Your task to perform on an android device: Search for sushi restaurants on Maps Image 0: 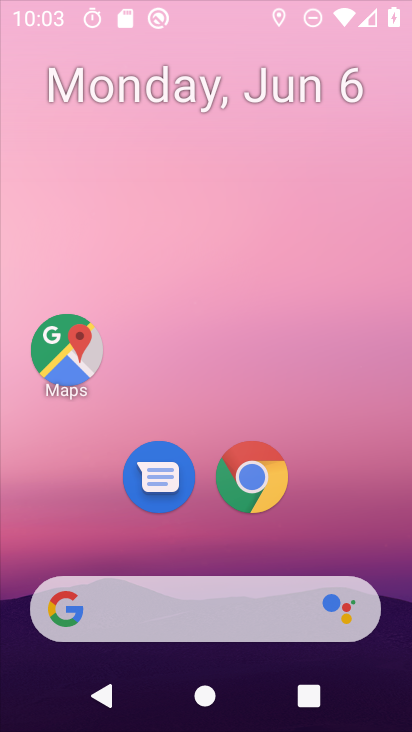
Step 0: drag from (322, 89) to (300, 30)
Your task to perform on an android device: Search for sushi restaurants on Maps Image 1: 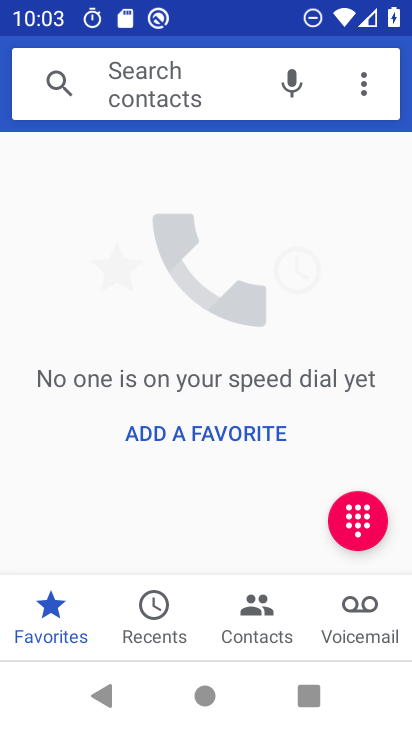
Step 1: press home button
Your task to perform on an android device: Search for sushi restaurants on Maps Image 2: 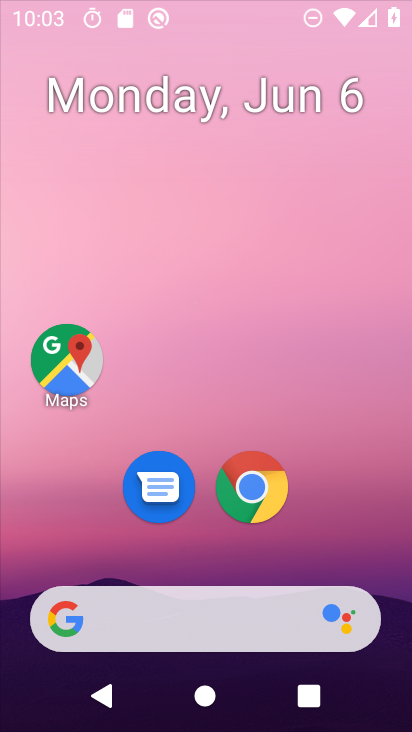
Step 2: drag from (397, 678) to (300, 62)
Your task to perform on an android device: Search for sushi restaurants on Maps Image 3: 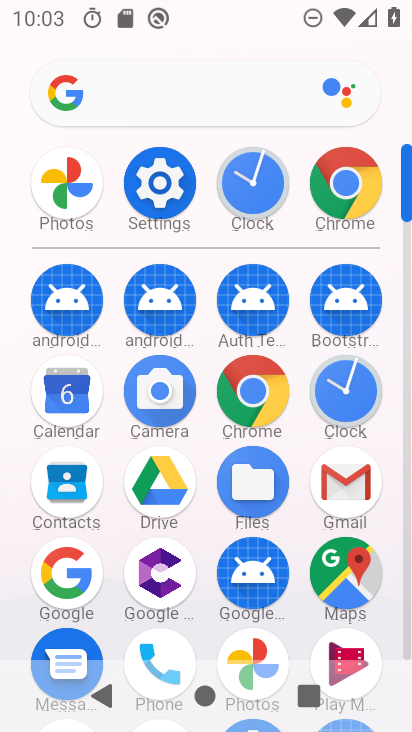
Step 3: click (356, 580)
Your task to perform on an android device: Search for sushi restaurants on Maps Image 4: 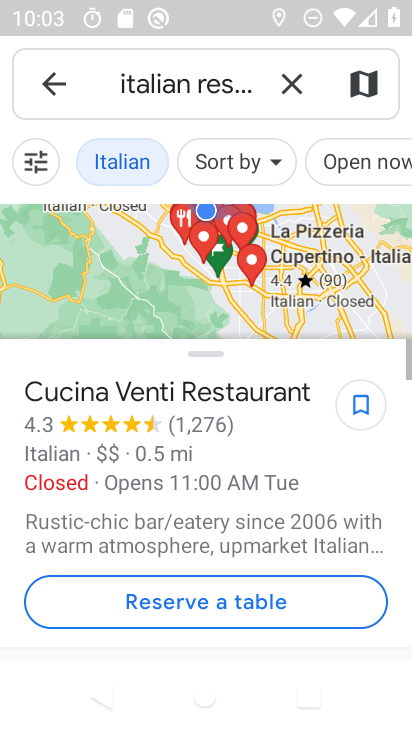
Step 4: click (293, 77)
Your task to perform on an android device: Search for sushi restaurants on Maps Image 5: 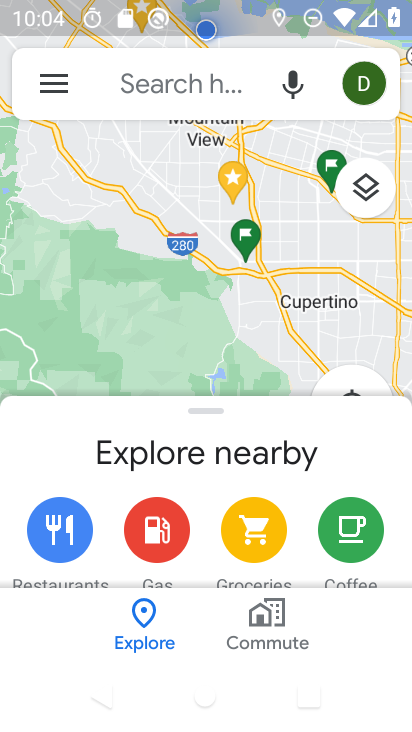
Step 5: click (182, 89)
Your task to perform on an android device: Search for sushi restaurants on Maps Image 6: 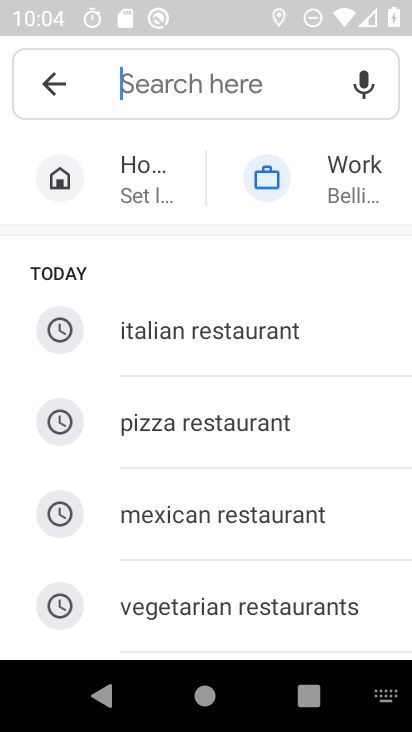
Step 6: drag from (184, 586) to (194, 207)
Your task to perform on an android device: Search for sushi restaurants on Maps Image 7: 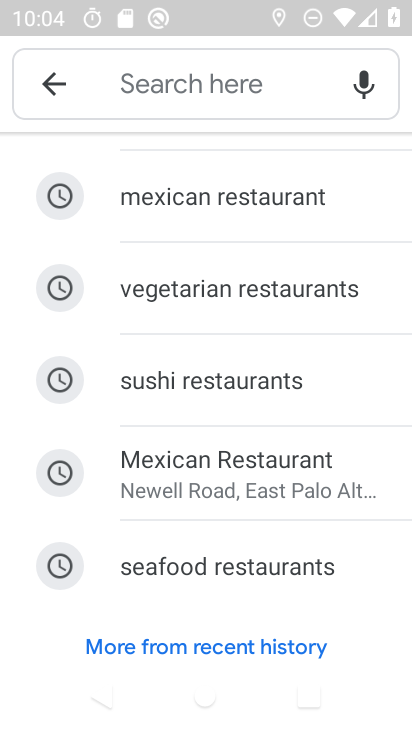
Step 7: click (170, 369)
Your task to perform on an android device: Search for sushi restaurants on Maps Image 8: 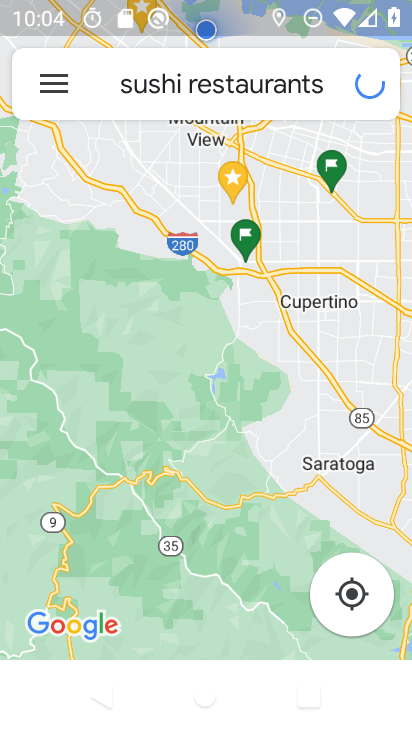
Step 8: click (170, 369)
Your task to perform on an android device: Search for sushi restaurants on Maps Image 9: 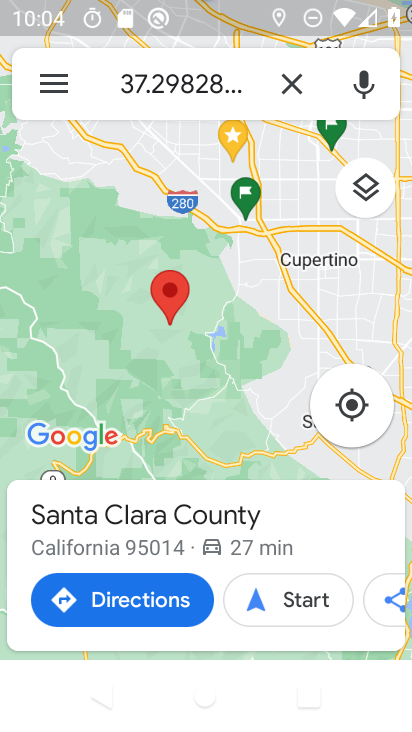
Step 9: click (280, 76)
Your task to perform on an android device: Search for sushi restaurants on Maps Image 10: 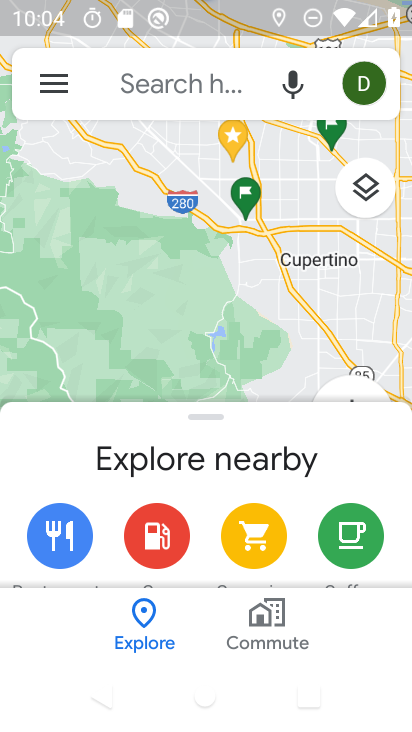
Step 10: click (169, 77)
Your task to perform on an android device: Search for sushi restaurants on Maps Image 11: 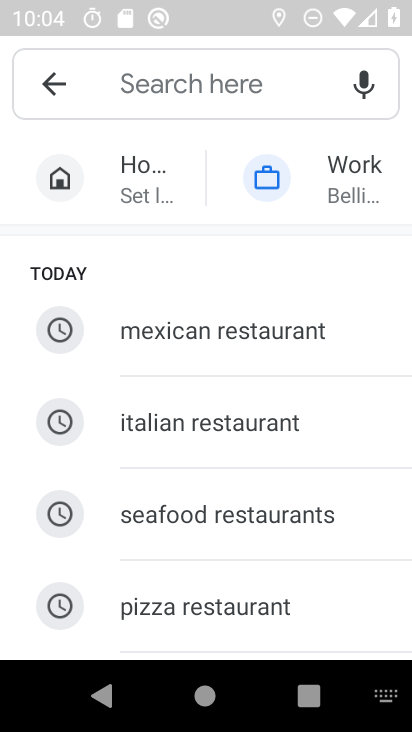
Step 11: drag from (184, 572) to (207, 225)
Your task to perform on an android device: Search for sushi restaurants on Maps Image 12: 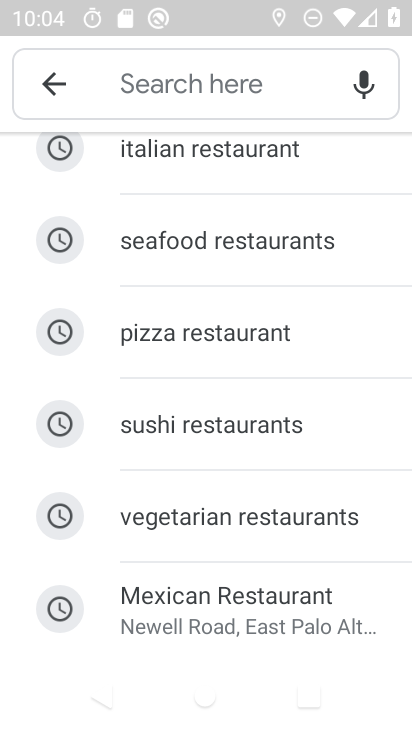
Step 12: click (192, 432)
Your task to perform on an android device: Search for sushi restaurants on Maps Image 13: 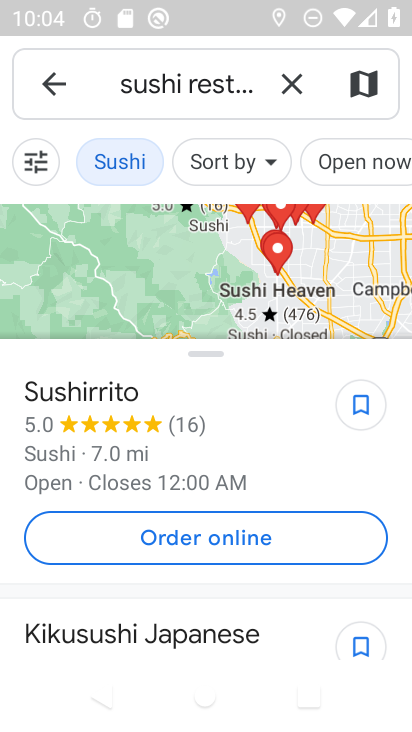
Step 13: task complete